Your task to perform on an android device: empty trash in google photos Image 0: 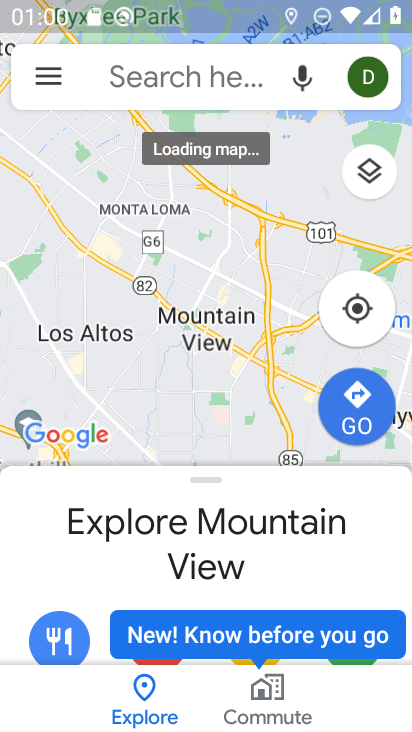
Step 0: press home button
Your task to perform on an android device: empty trash in google photos Image 1: 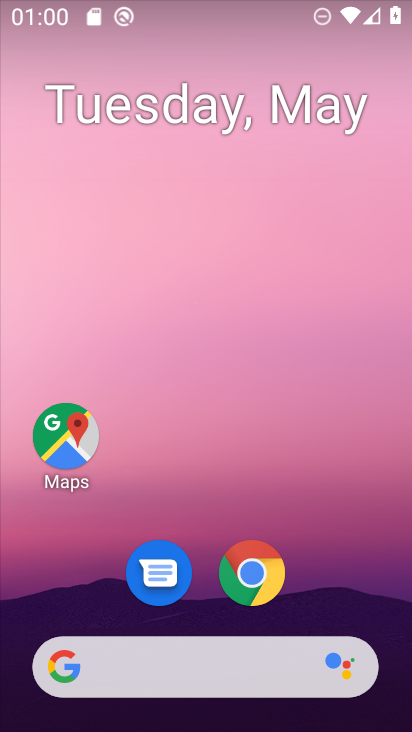
Step 1: drag from (333, 533) to (205, 33)
Your task to perform on an android device: empty trash in google photos Image 2: 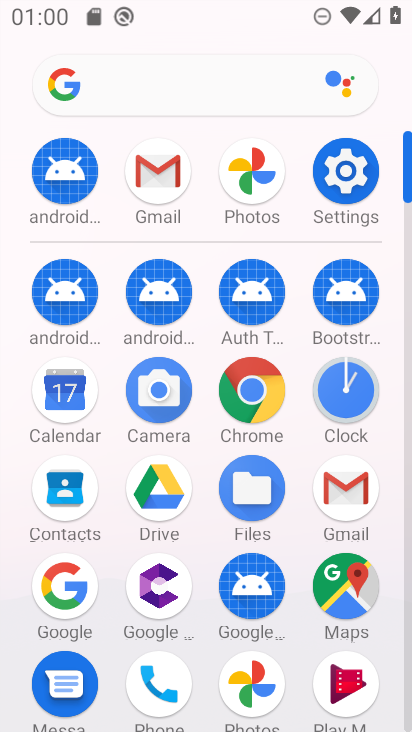
Step 2: click (242, 187)
Your task to perform on an android device: empty trash in google photos Image 3: 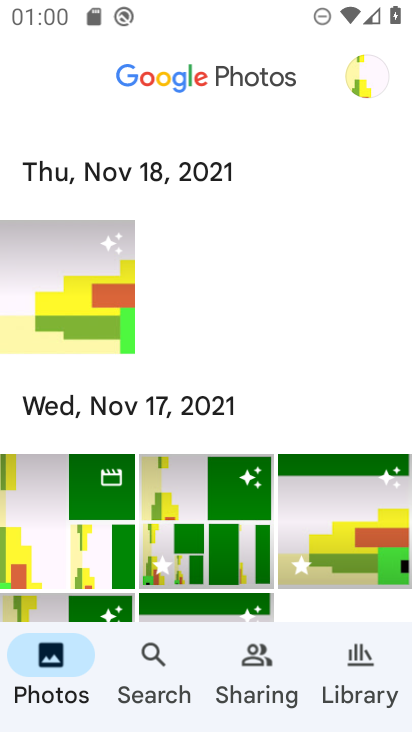
Step 3: click (363, 680)
Your task to perform on an android device: empty trash in google photos Image 4: 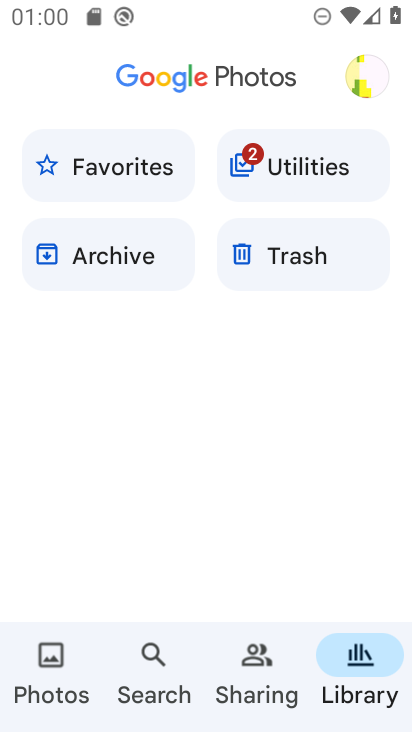
Step 4: click (372, 86)
Your task to perform on an android device: empty trash in google photos Image 5: 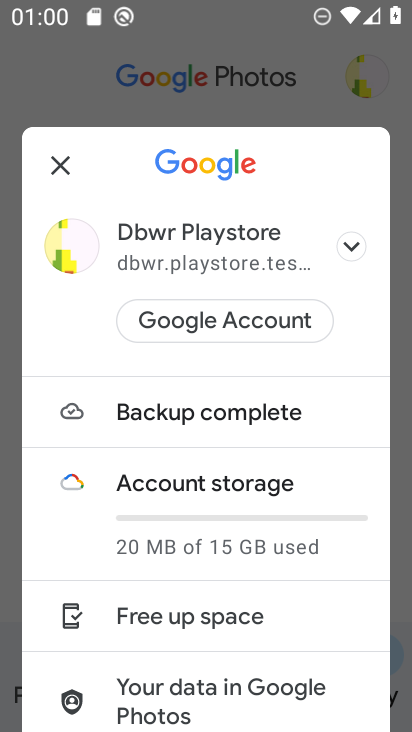
Step 5: click (62, 163)
Your task to perform on an android device: empty trash in google photos Image 6: 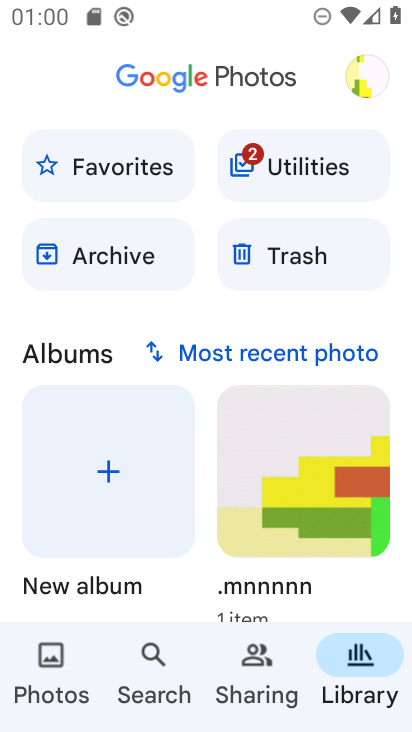
Step 6: click (357, 683)
Your task to perform on an android device: empty trash in google photos Image 7: 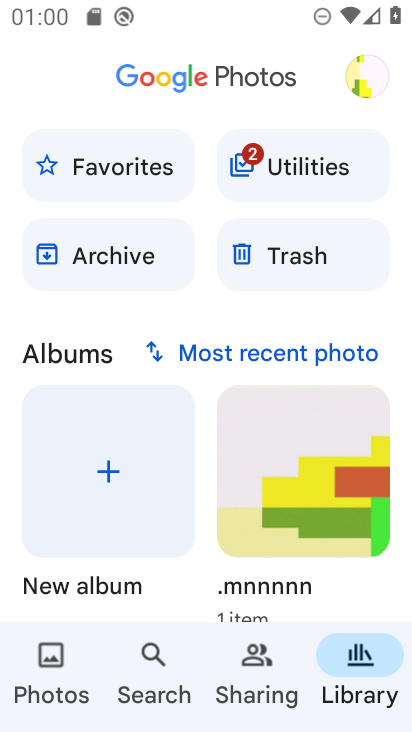
Step 7: click (278, 243)
Your task to perform on an android device: empty trash in google photos Image 8: 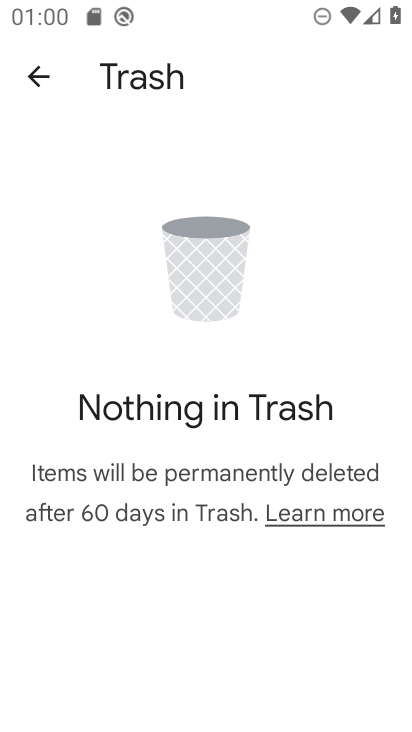
Step 8: task complete